Your task to perform on an android device: refresh tabs in the chrome app Image 0: 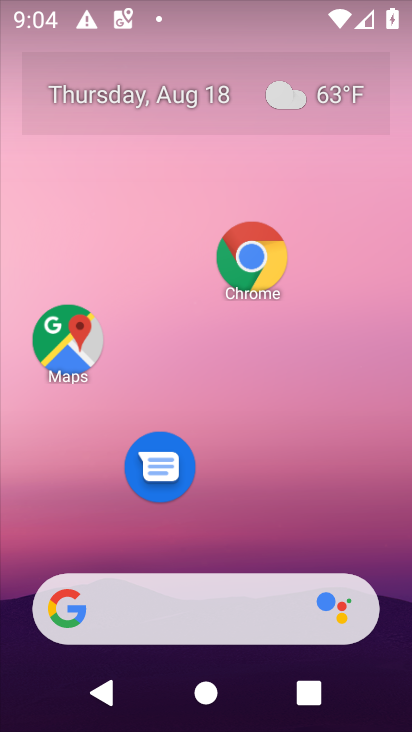
Step 0: drag from (282, 431) to (254, 24)
Your task to perform on an android device: refresh tabs in the chrome app Image 1: 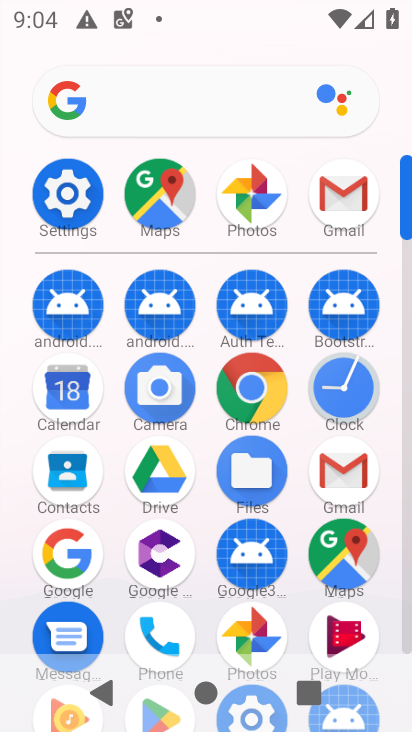
Step 1: task complete